Your task to perform on an android device: Add "bose quietcomfort 35" to the cart on target.com, then select checkout. Image 0: 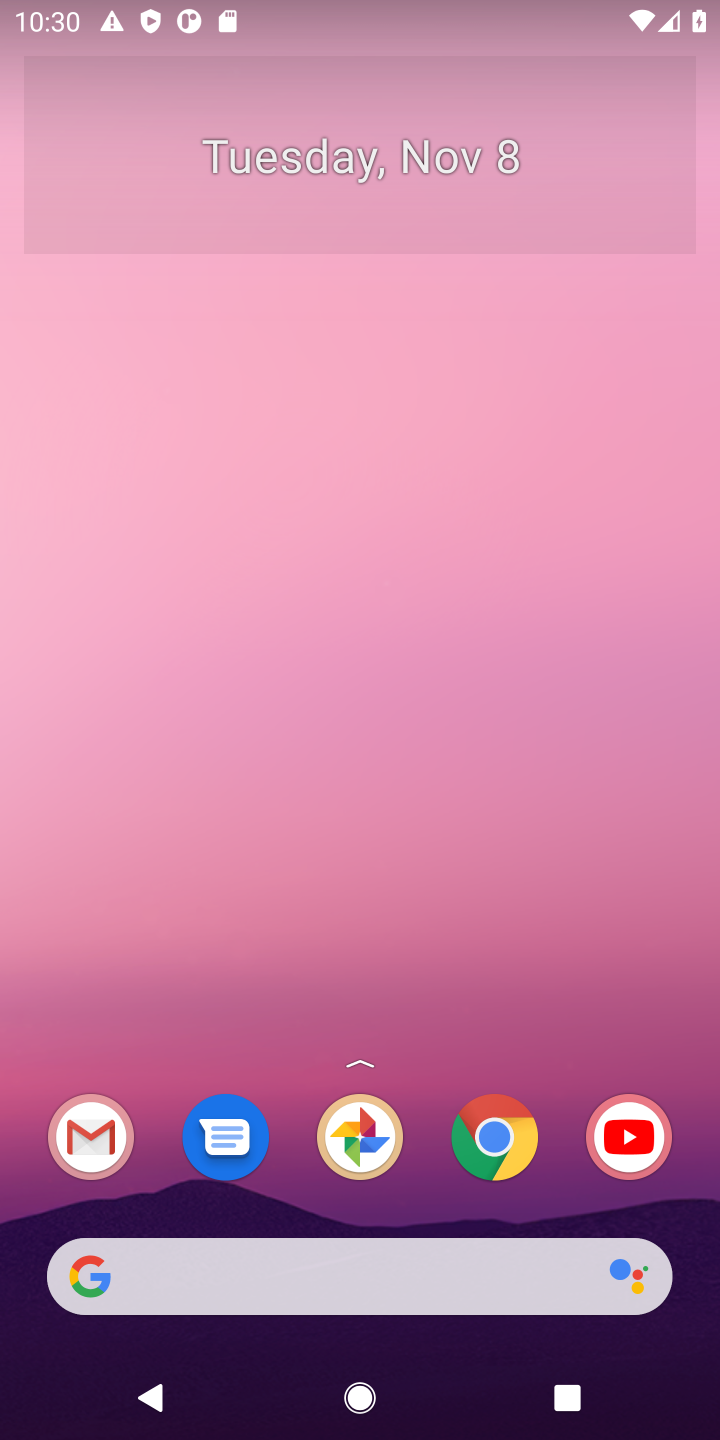
Step 0: click (478, 1145)
Your task to perform on an android device: Add "bose quietcomfort 35" to the cart on target.com, then select checkout. Image 1: 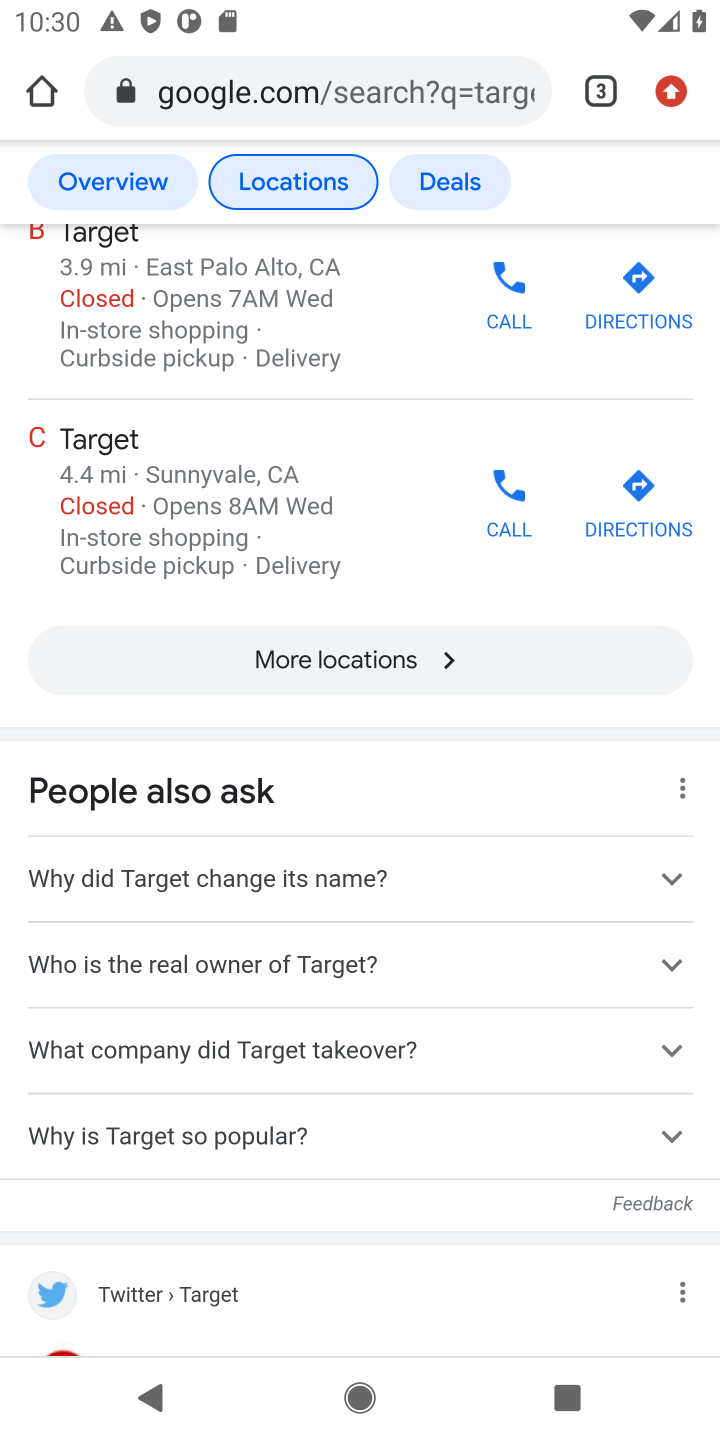
Step 1: click (597, 83)
Your task to perform on an android device: Add "bose quietcomfort 35" to the cart on target.com, then select checkout. Image 2: 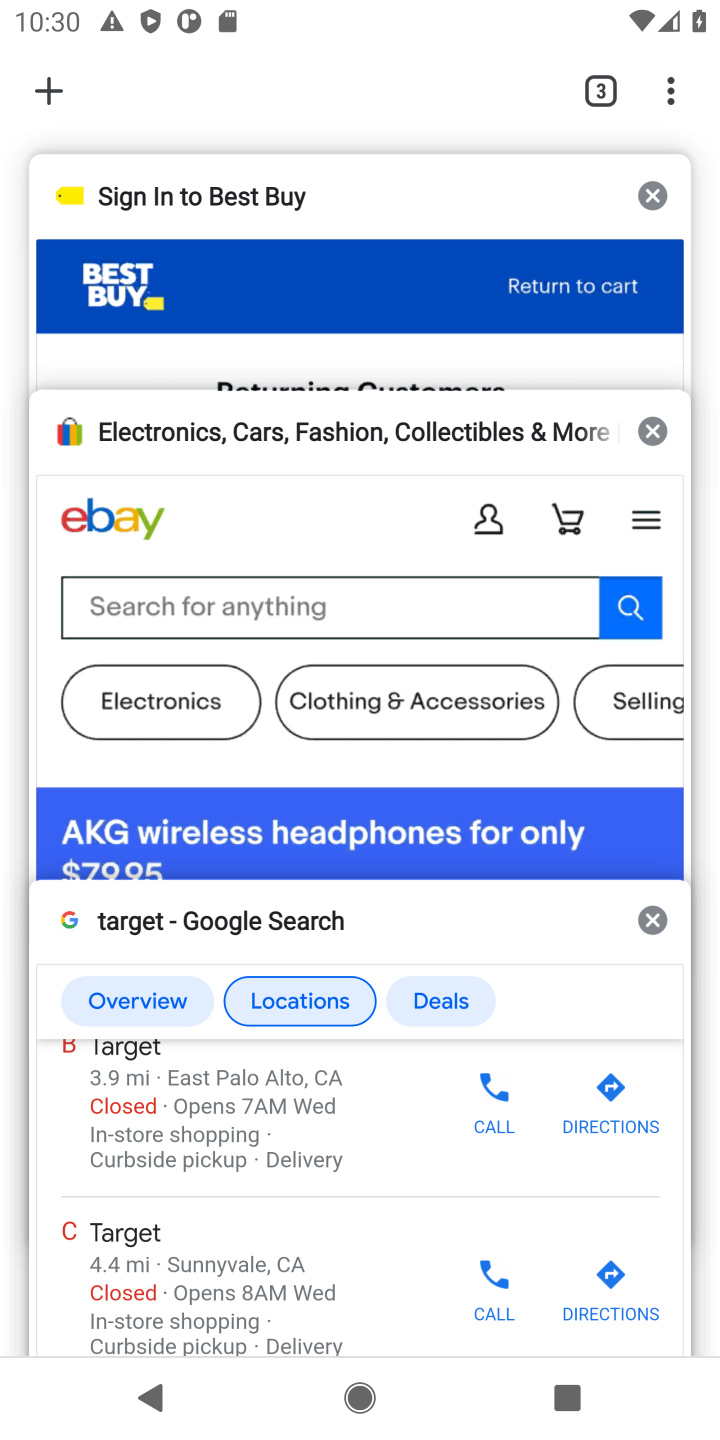
Step 2: click (231, 1128)
Your task to perform on an android device: Add "bose quietcomfort 35" to the cart on target.com, then select checkout. Image 3: 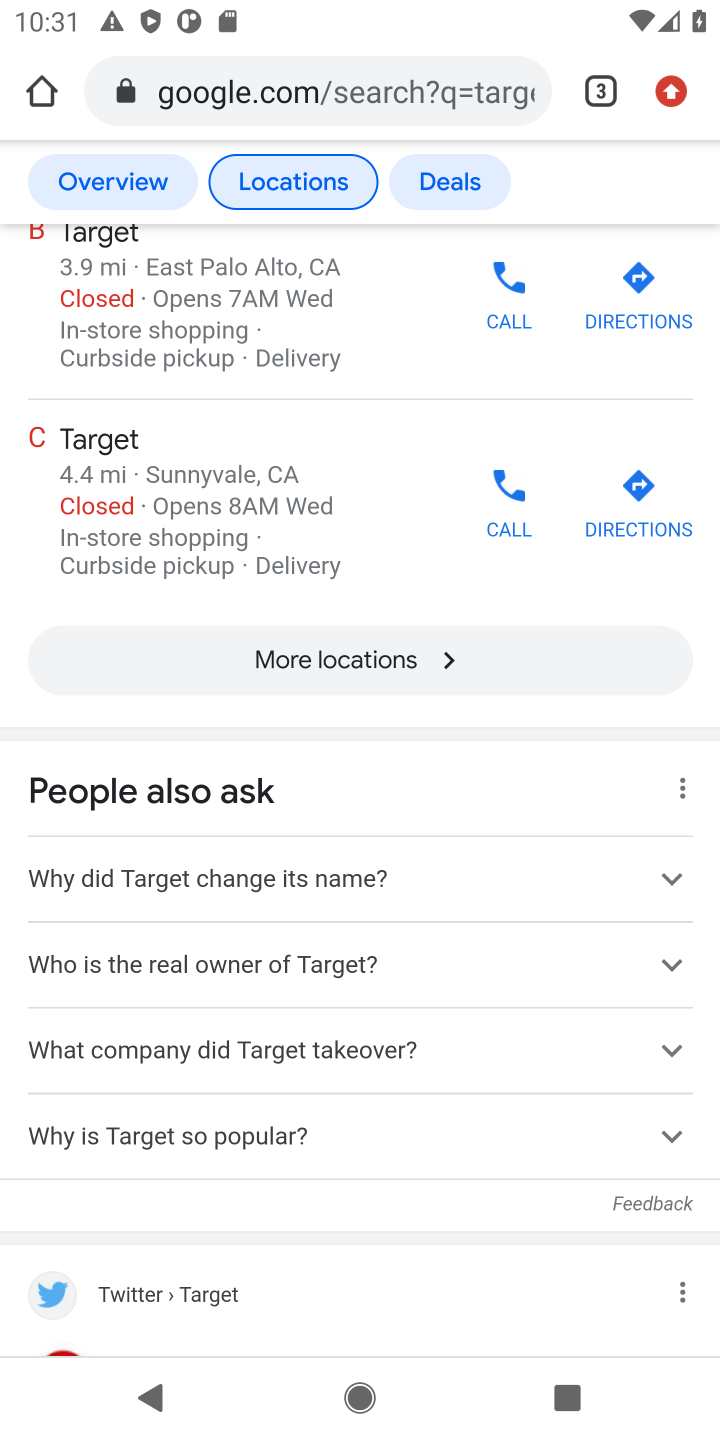
Step 3: drag from (375, 407) to (336, 1438)
Your task to perform on an android device: Add "bose quietcomfort 35" to the cart on target.com, then select checkout. Image 4: 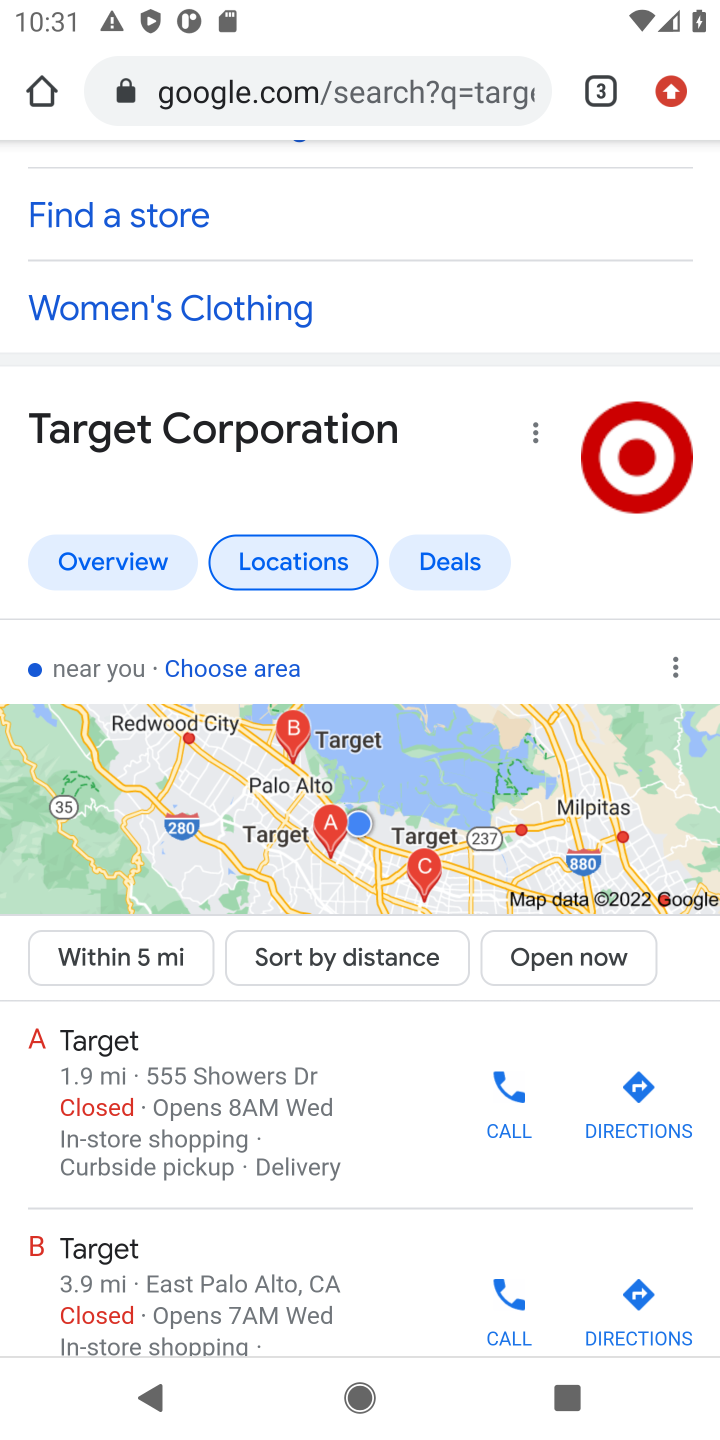
Step 4: drag from (438, 418) to (400, 1200)
Your task to perform on an android device: Add "bose quietcomfort 35" to the cart on target.com, then select checkout. Image 5: 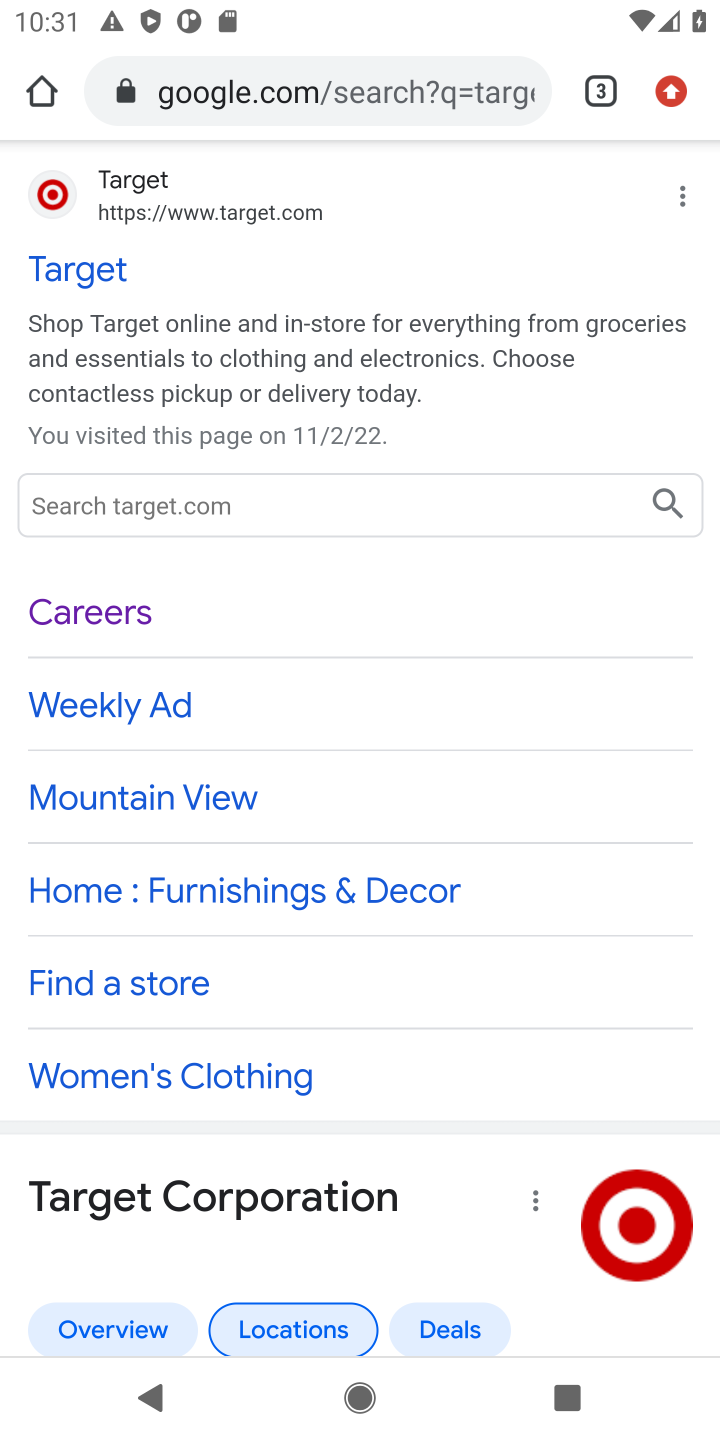
Step 5: click (184, 504)
Your task to perform on an android device: Add "bose quietcomfort 35" to the cart on target.com, then select checkout. Image 6: 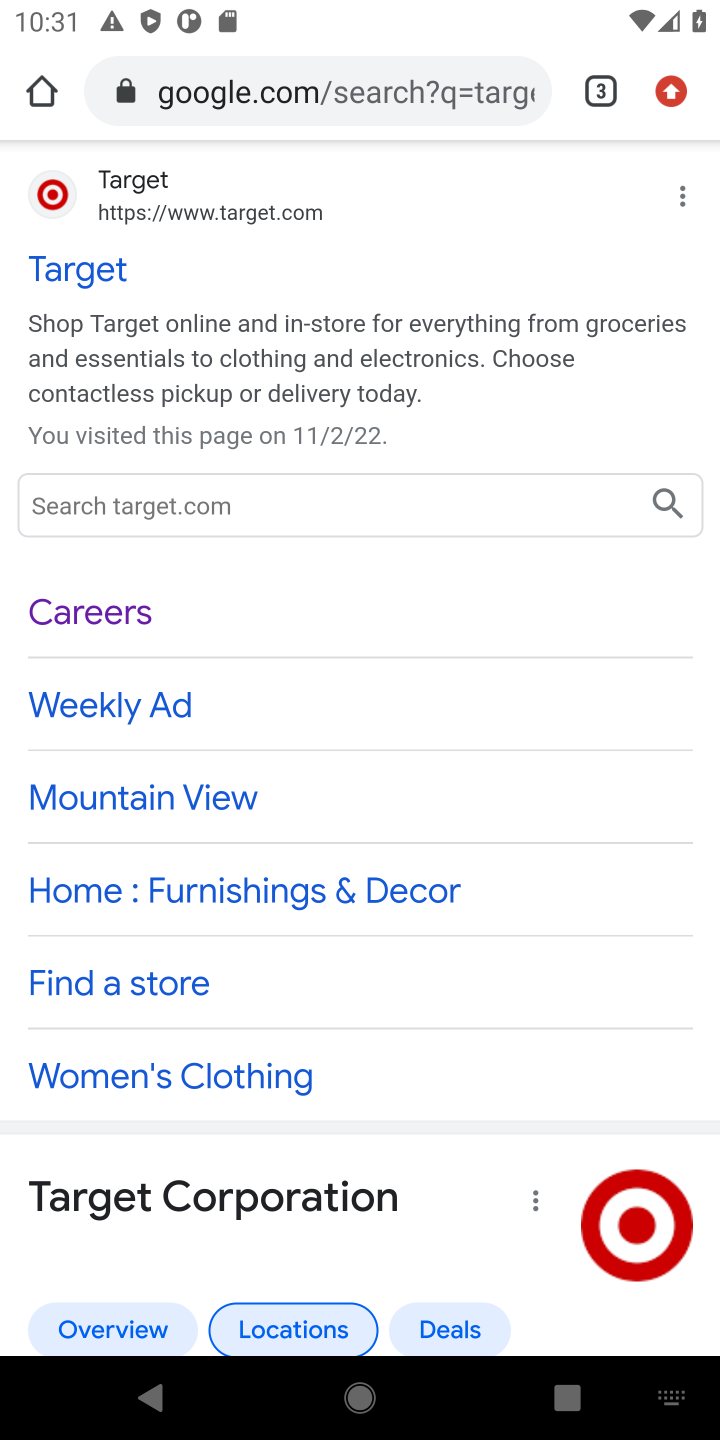
Step 6: type "bose quietcomfort 35"
Your task to perform on an android device: Add "bose quietcomfort 35" to the cart on target.com, then select checkout. Image 7: 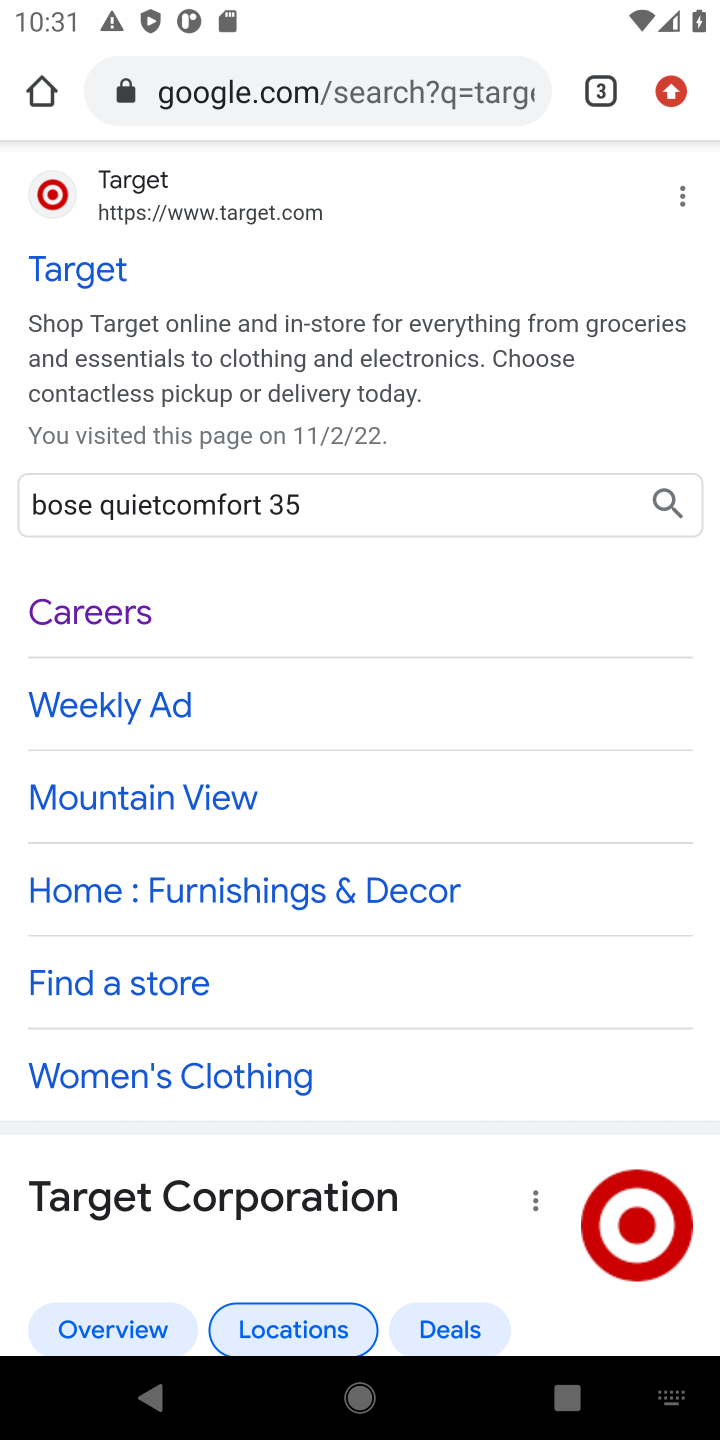
Step 7: click (668, 504)
Your task to perform on an android device: Add "bose quietcomfort 35" to the cart on target.com, then select checkout. Image 8: 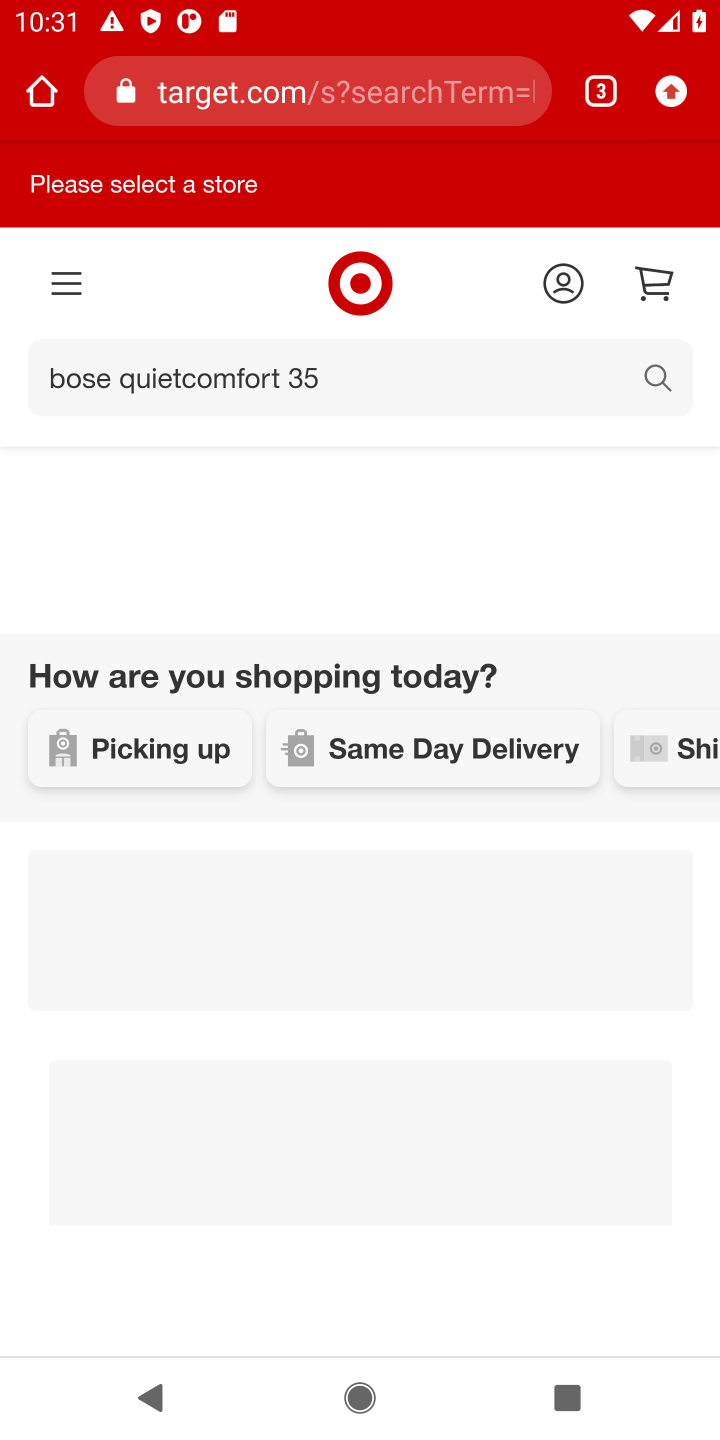
Step 8: drag from (329, 1208) to (682, 80)
Your task to perform on an android device: Add "bose quietcomfort 35" to the cart on target.com, then select checkout. Image 9: 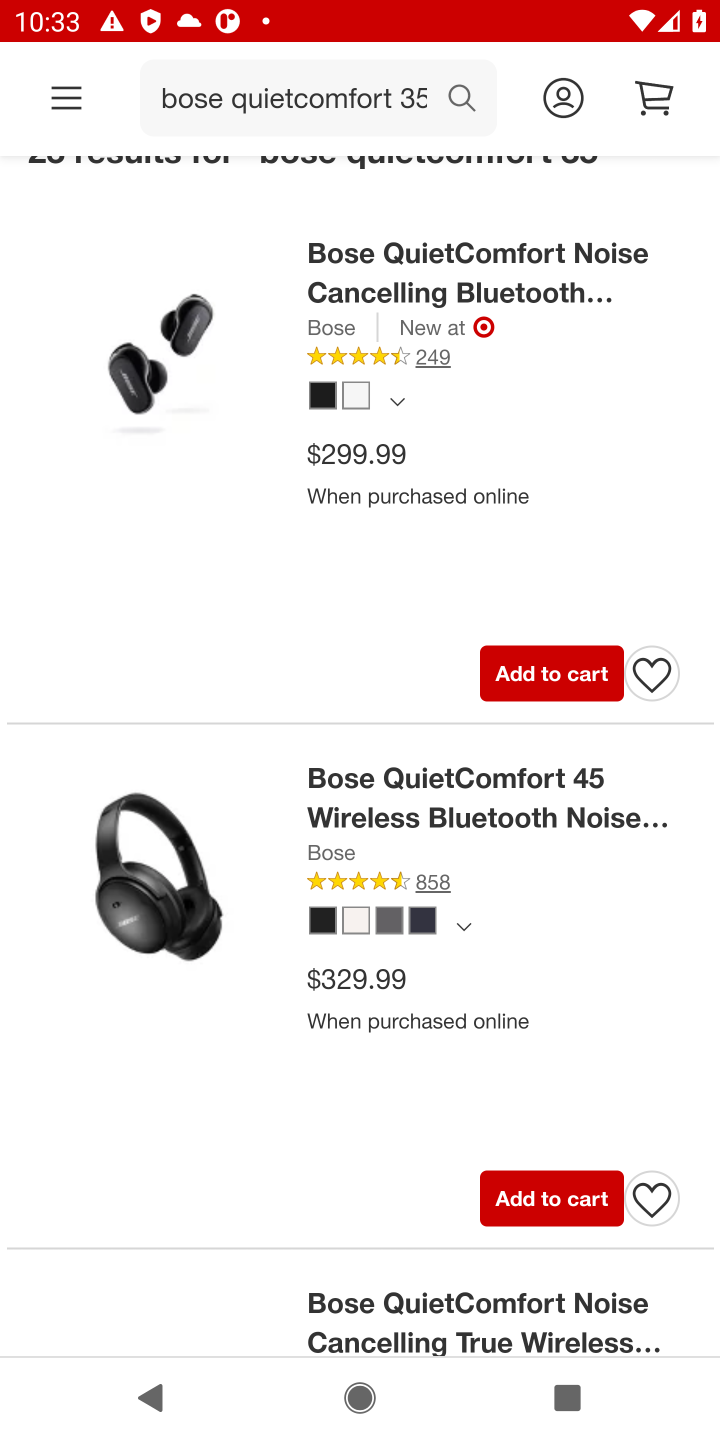
Step 9: drag from (525, 444) to (568, 832)
Your task to perform on an android device: Add "bose quietcomfort 35" to the cart on target.com, then select checkout. Image 10: 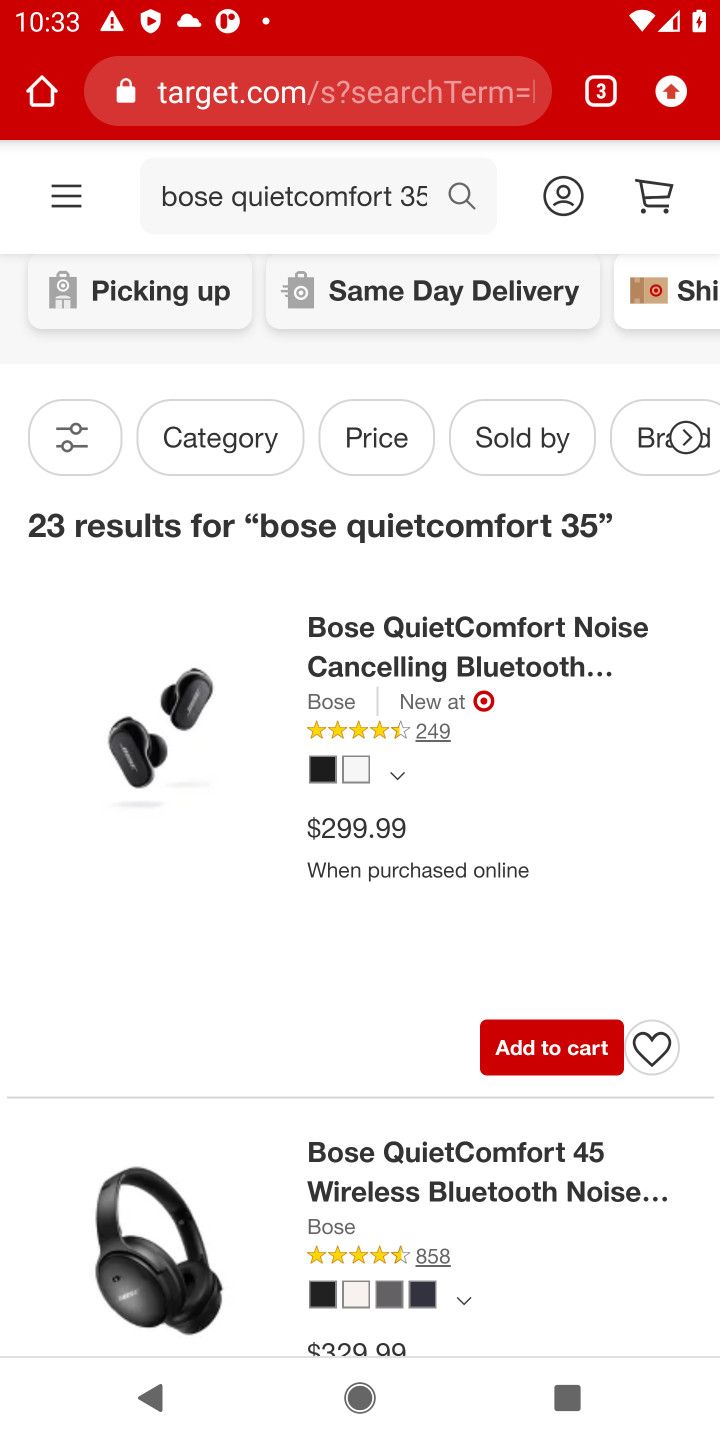
Step 10: click (545, 1040)
Your task to perform on an android device: Add "bose quietcomfort 35" to the cart on target.com, then select checkout. Image 11: 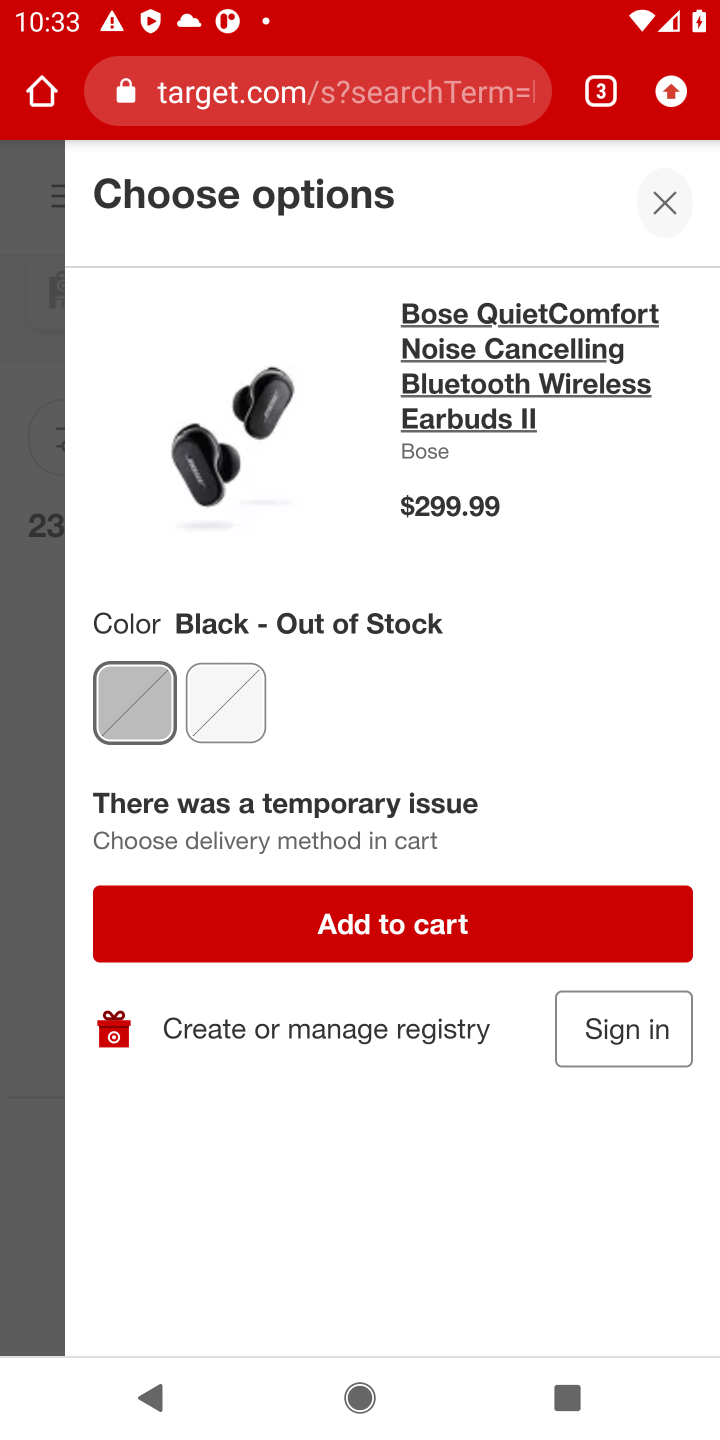
Step 11: click (464, 937)
Your task to perform on an android device: Add "bose quietcomfort 35" to the cart on target.com, then select checkout. Image 12: 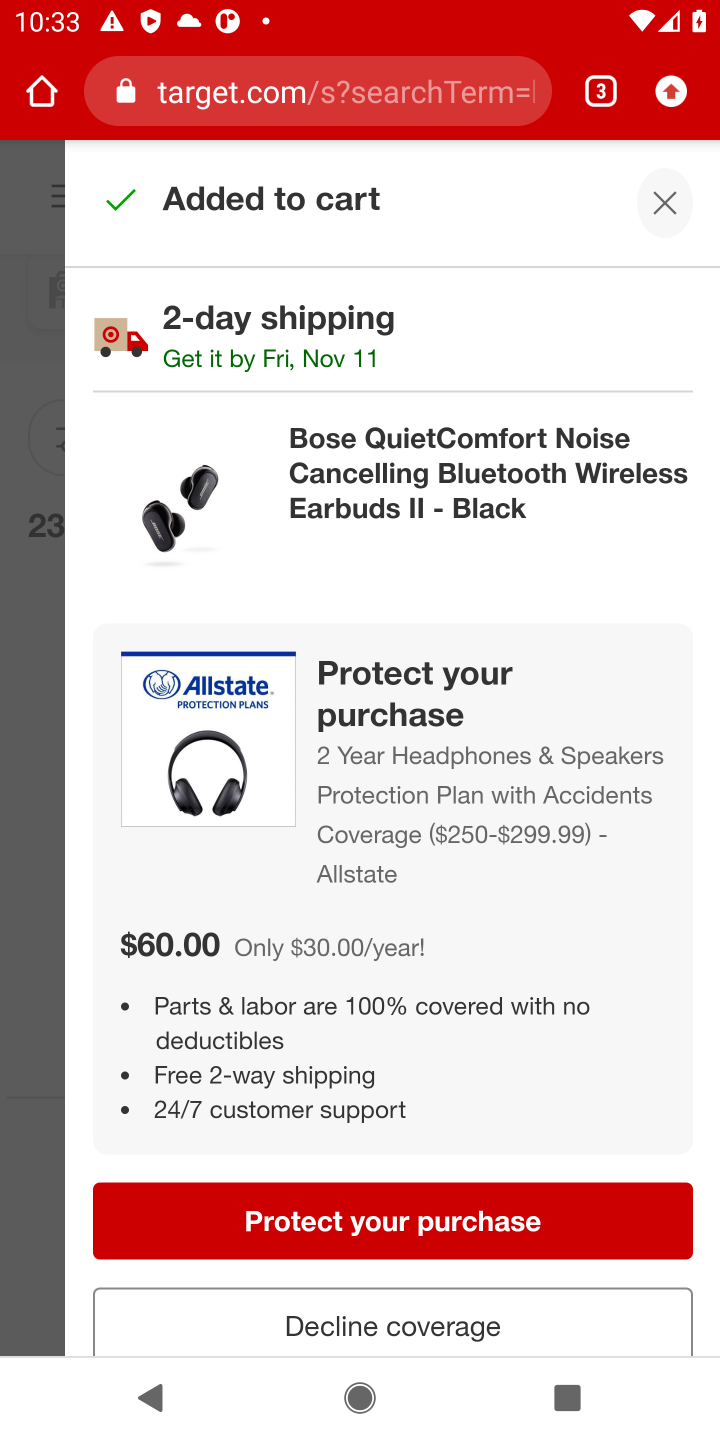
Step 12: click (377, 1318)
Your task to perform on an android device: Add "bose quietcomfort 35" to the cart on target.com, then select checkout. Image 13: 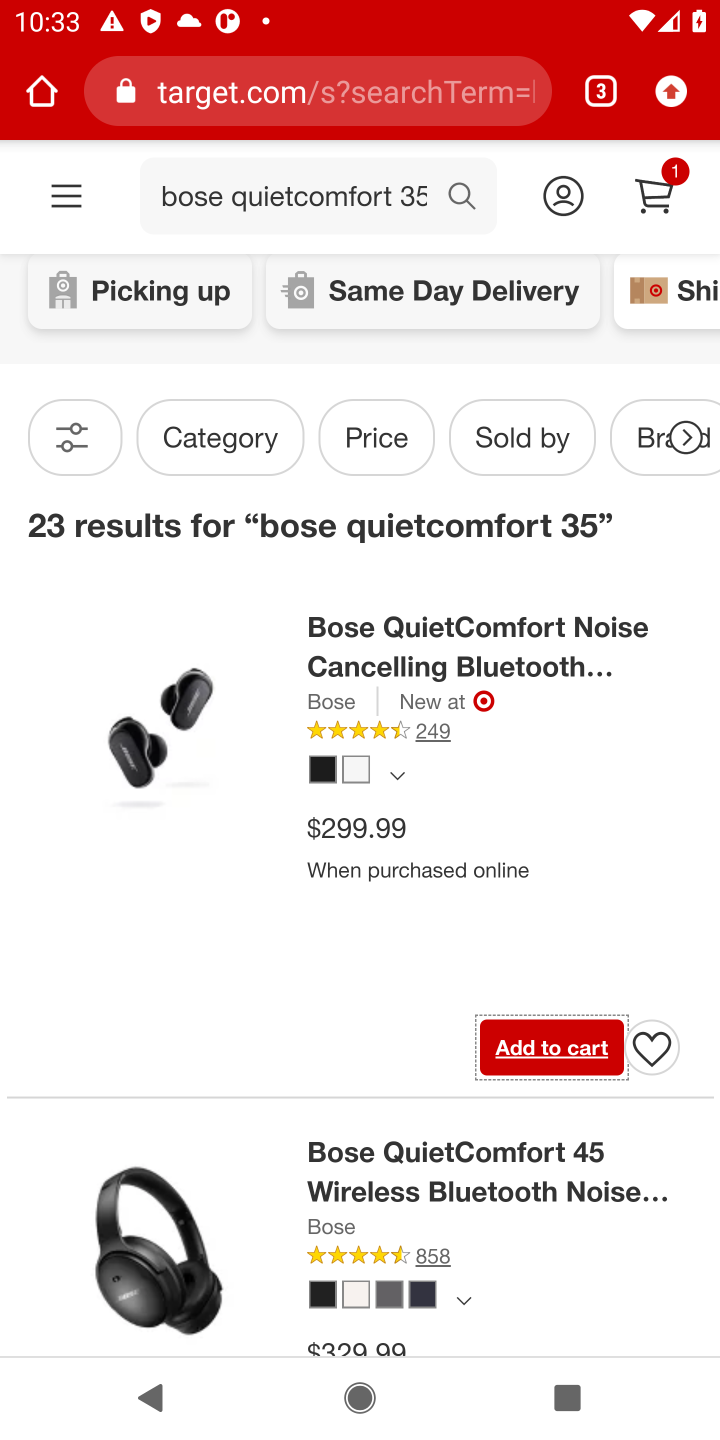
Step 13: click (661, 178)
Your task to perform on an android device: Add "bose quietcomfort 35" to the cart on target.com, then select checkout. Image 14: 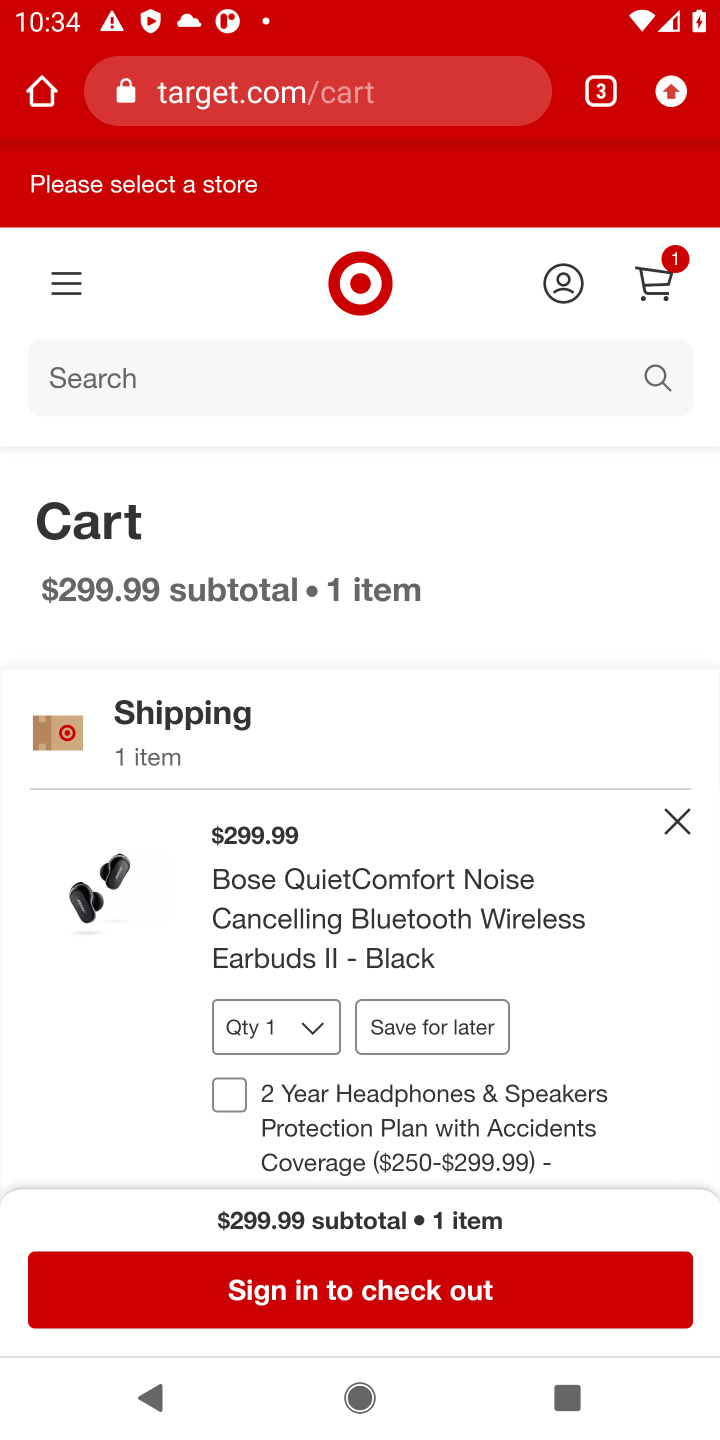
Step 14: click (473, 1283)
Your task to perform on an android device: Add "bose quietcomfort 35" to the cart on target.com, then select checkout. Image 15: 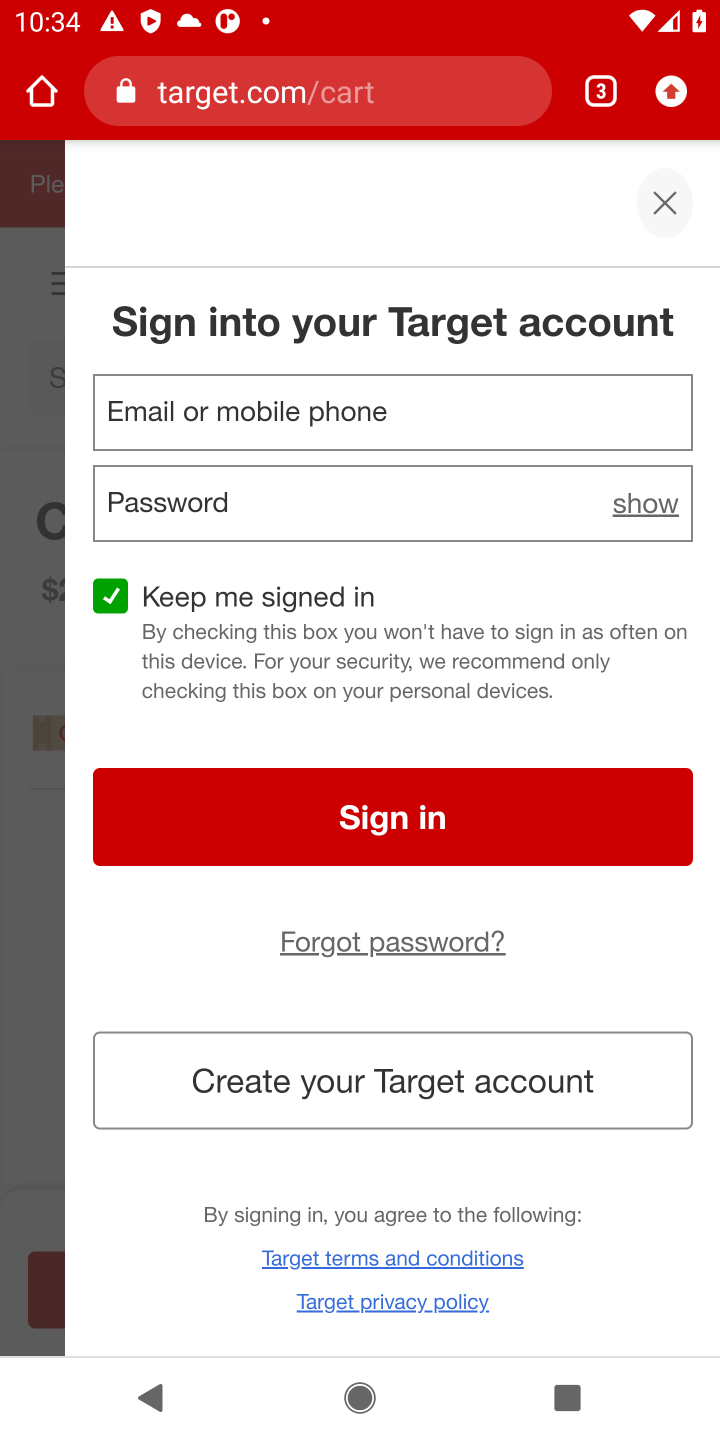
Step 15: task complete